Your task to perform on an android device: turn off notifications in google photos Image 0: 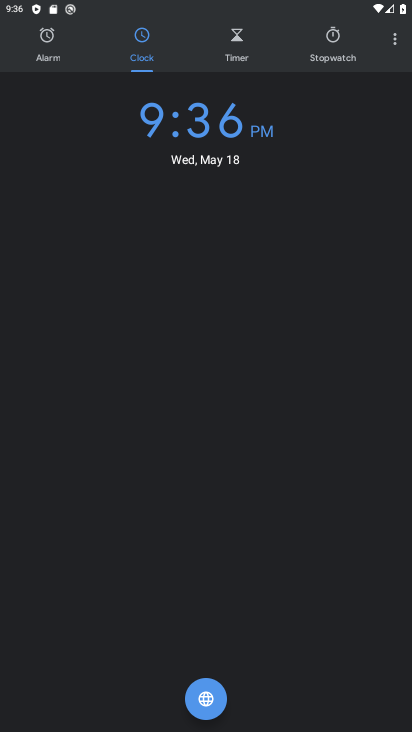
Step 0: press home button
Your task to perform on an android device: turn off notifications in google photos Image 1: 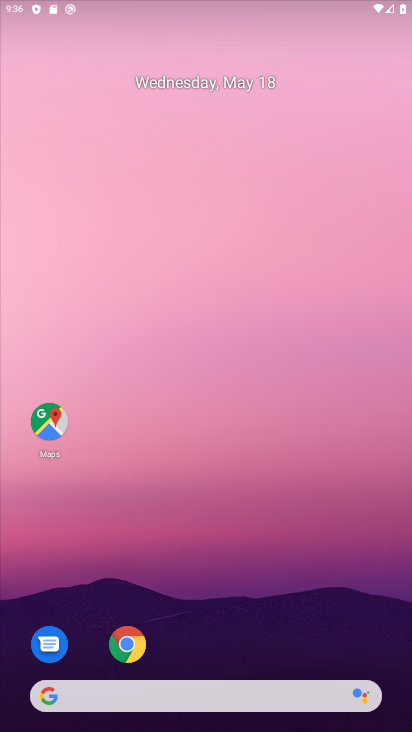
Step 1: drag from (328, 518) to (330, 160)
Your task to perform on an android device: turn off notifications in google photos Image 2: 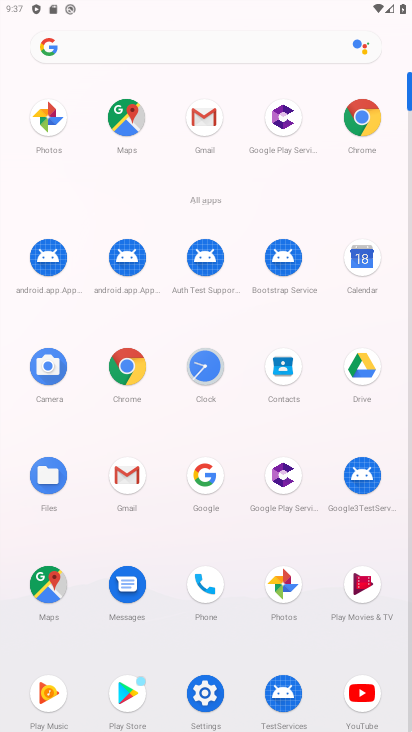
Step 2: click (48, 120)
Your task to perform on an android device: turn off notifications in google photos Image 3: 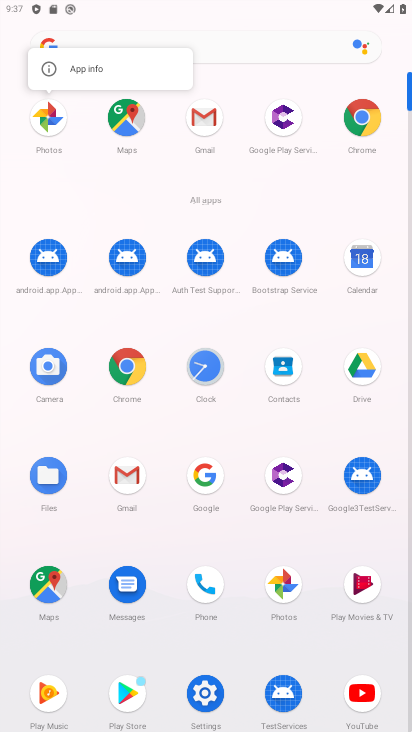
Step 3: click (53, 112)
Your task to perform on an android device: turn off notifications in google photos Image 4: 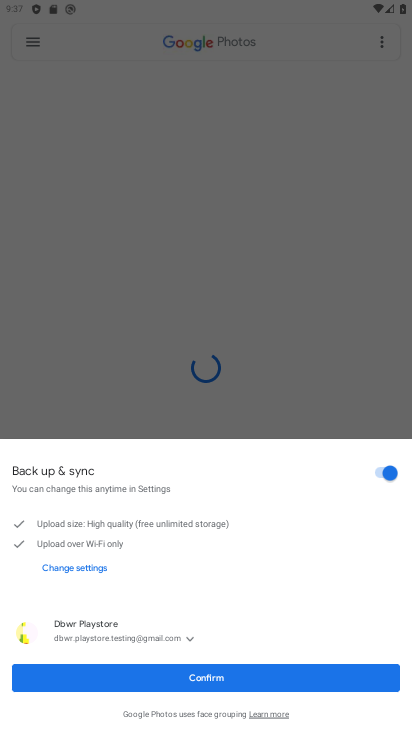
Step 4: click (152, 679)
Your task to perform on an android device: turn off notifications in google photos Image 5: 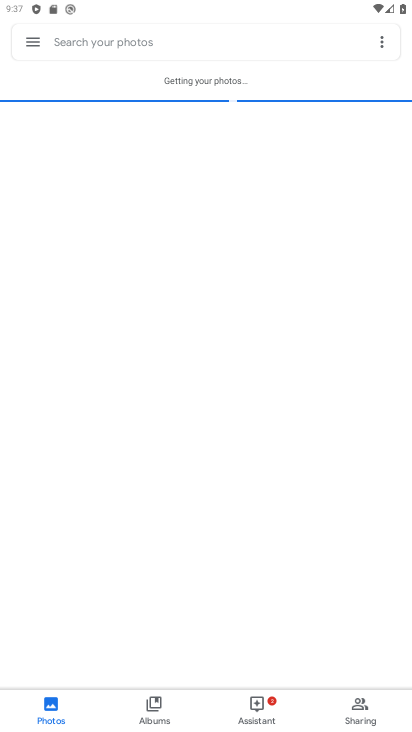
Step 5: click (38, 45)
Your task to perform on an android device: turn off notifications in google photos Image 6: 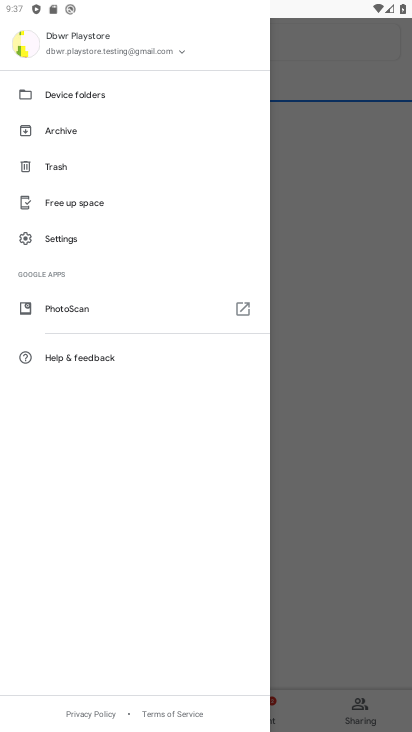
Step 6: click (88, 239)
Your task to perform on an android device: turn off notifications in google photos Image 7: 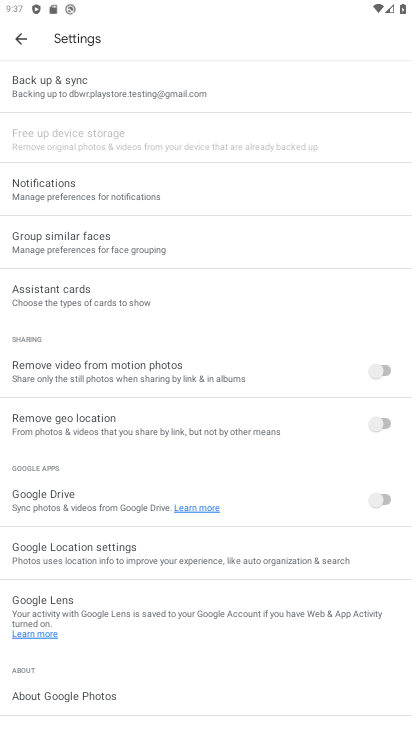
Step 7: click (92, 196)
Your task to perform on an android device: turn off notifications in google photos Image 8: 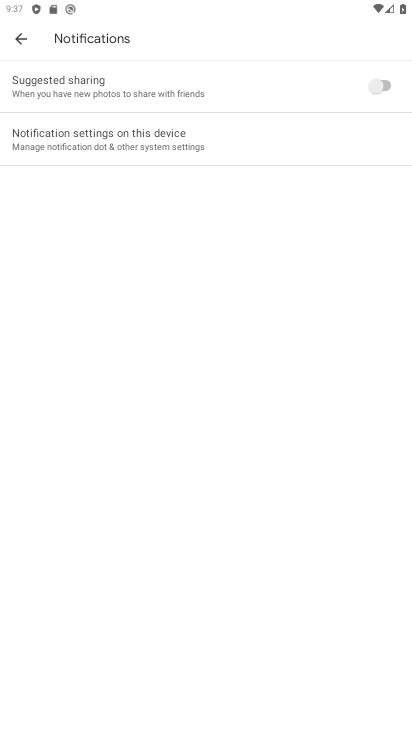
Step 8: click (134, 138)
Your task to perform on an android device: turn off notifications in google photos Image 9: 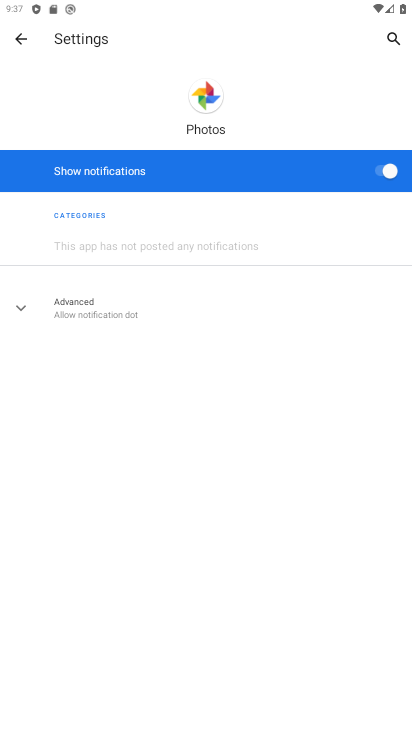
Step 9: click (363, 170)
Your task to perform on an android device: turn off notifications in google photos Image 10: 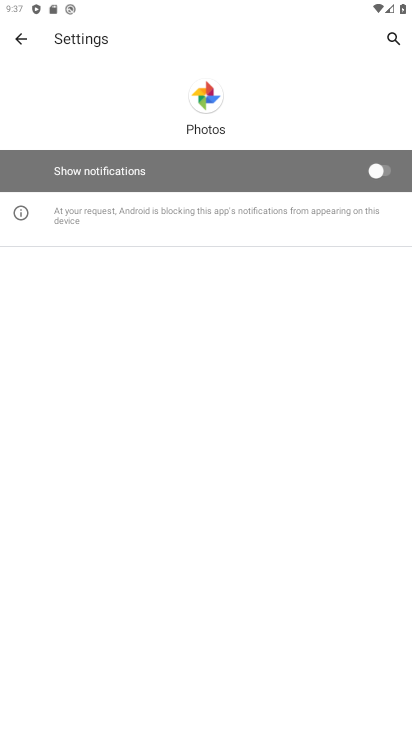
Step 10: task complete